Your task to perform on an android device: open a bookmark in the chrome app Image 0: 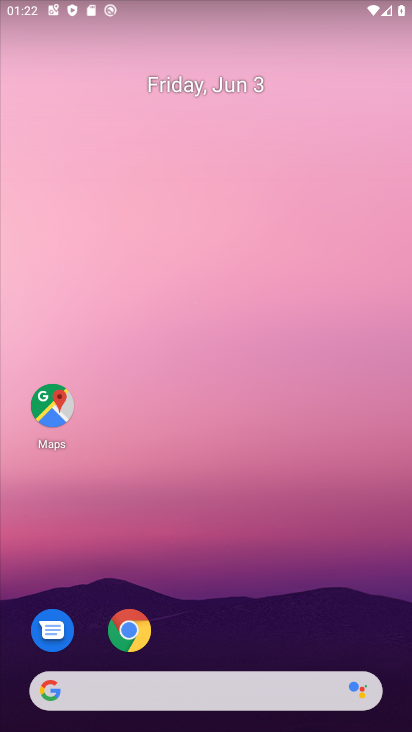
Step 0: drag from (259, 632) to (272, 115)
Your task to perform on an android device: open a bookmark in the chrome app Image 1: 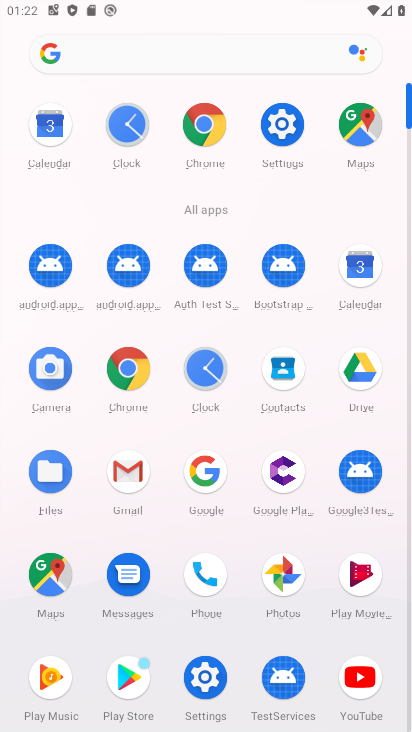
Step 1: click (214, 124)
Your task to perform on an android device: open a bookmark in the chrome app Image 2: 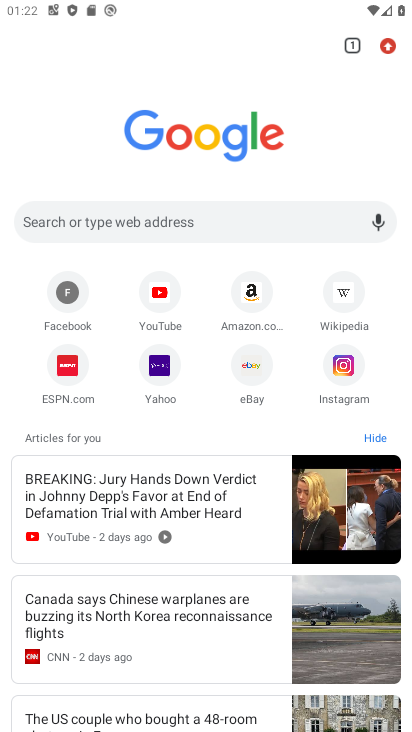
Step 2: click (392, 54)
Your task to perform on an android device: open a bookmark in the chrome app Image 3: 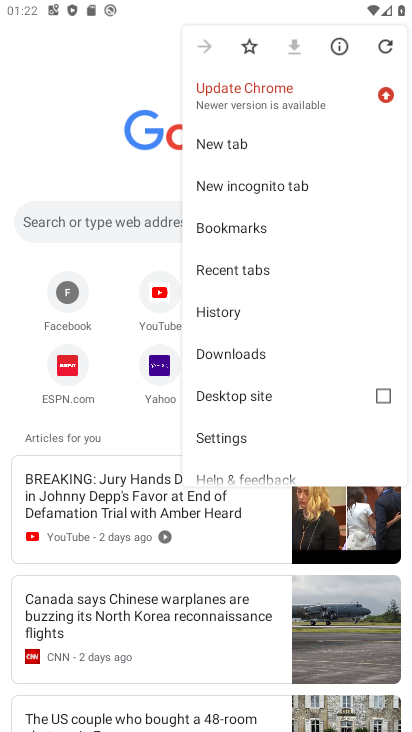
Step 3: click (313, 226)
Your task to perform on an android device: open a bookmark in the chrome app Image 4: 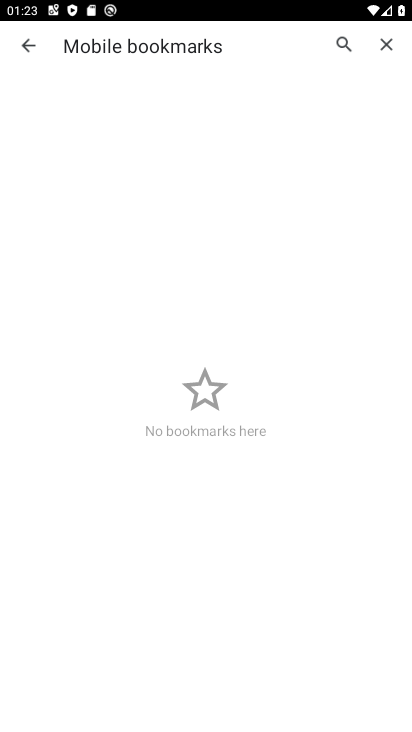
Step 4: task complete